Your task to perform on an android device: Go to internet settings Image 0: 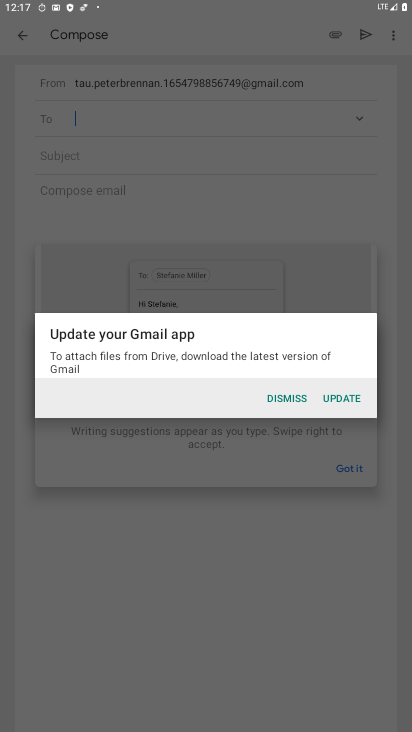
Step 0: press home button
Your task to perform on an android device: Go to internet settings Image 1: 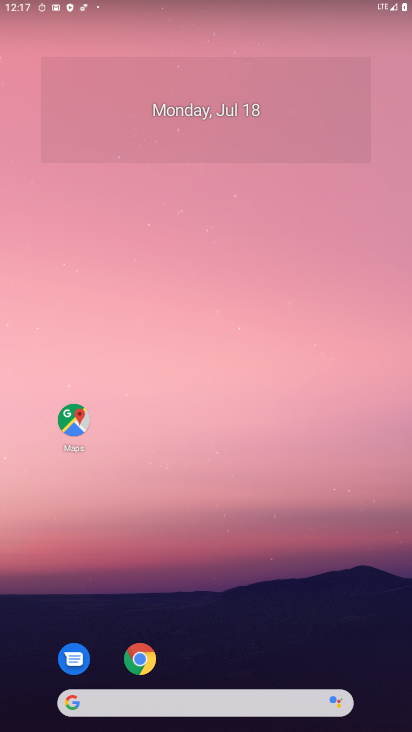
Step 1: drag from (225, 603) to (258, 20)
Your task to perform on an android device: Go to internet settings Image 2: 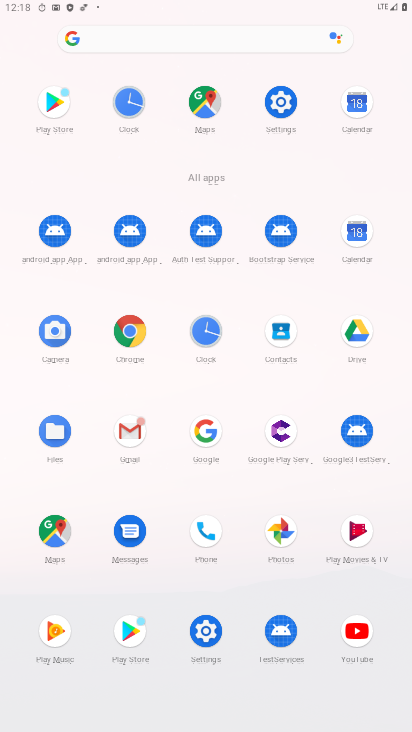
Step 2: click (203, 642)
Your task to perform on an android device: Go to internet settings Image 3: 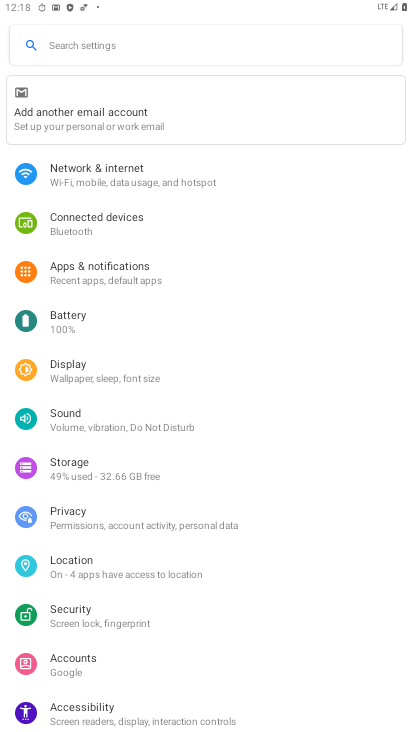
Step 3: click (104, 182)
Your task to perform on an android device: Go to internet settings Image 4: 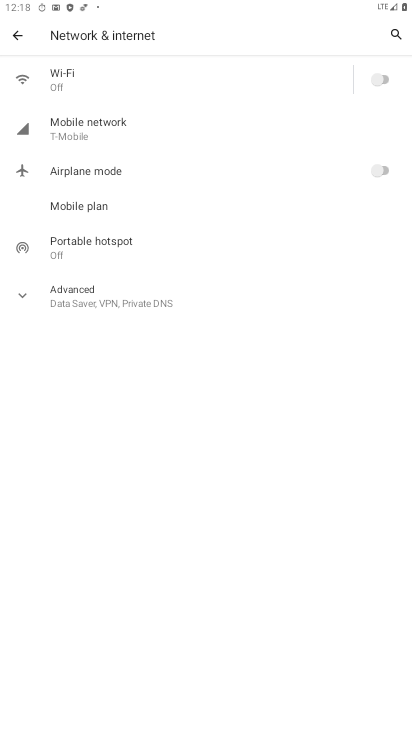
Step 4: task complete